Your task to perform on an android device: turn notification dots on Image 0: 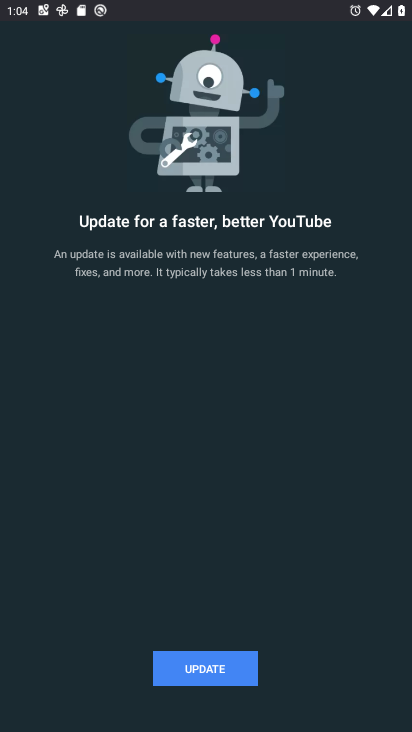
Step 0: press home button
Your task to perform on an android device: turn notification dots on Image 1: 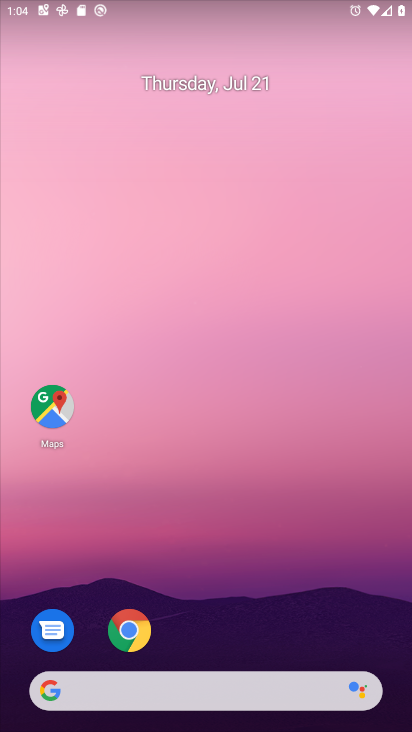
Step 1: drag from (181, 649) to (222, 85)
Your task to perform on an android device: turn notification dots on Image 2: 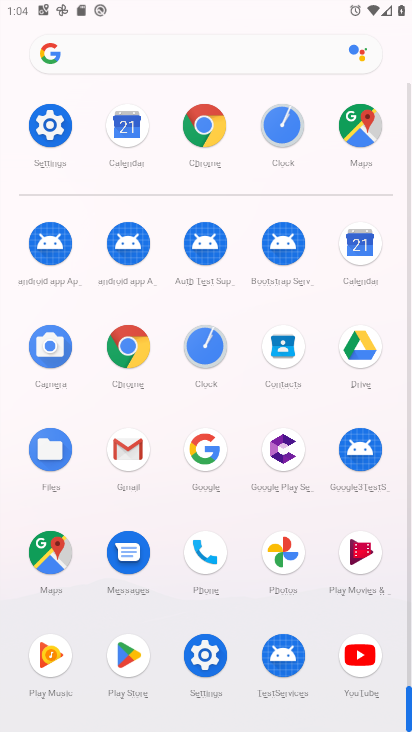
Step 2: click (205, 648)
Your task to perform on an android device: turn notification dots on Image 3: 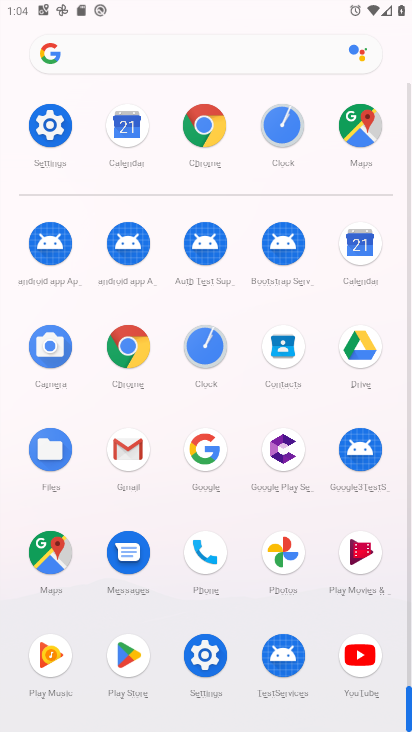
Step 3: click (205, 648)
Your task to perform on an android device: turn notification dots on Image 4: 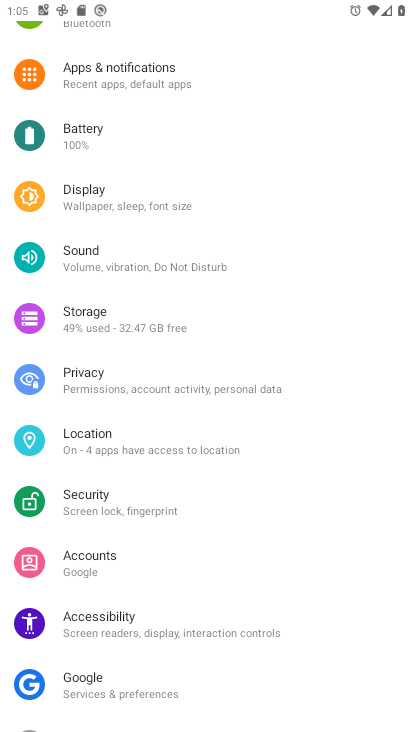
Step 4: click (146, 74)
Your task to perform on an android device: turn notification dots on Image 5: 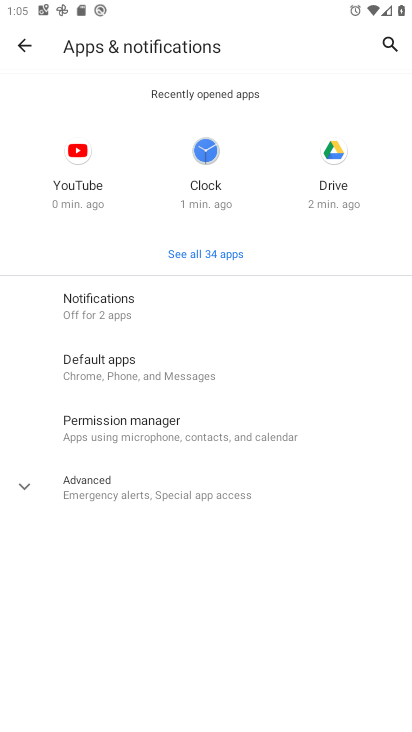
Step 5: click (164, 313)
Your task to perform on an android device: turn notification dots on Image 6: 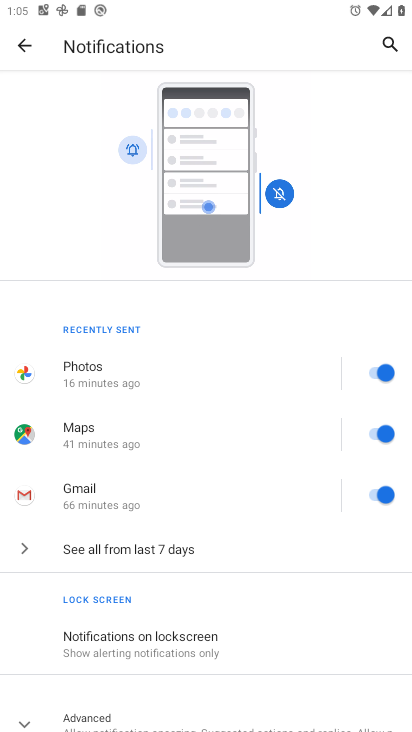
Step 6: drag from (203, 628) to (275, 345)
Your task to perform on an android device: turn notification dots on Image 7: 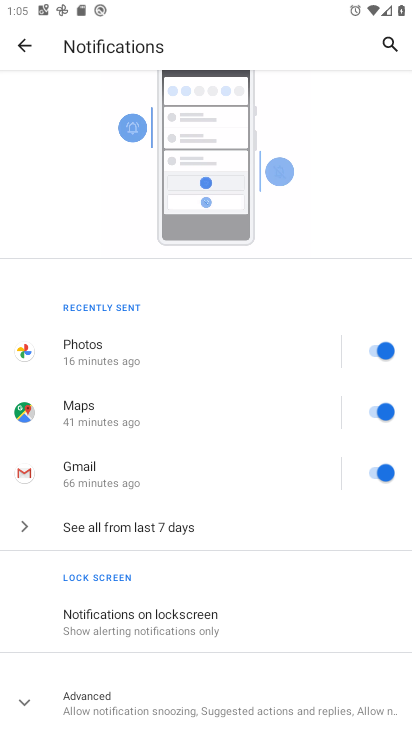
Step 7: click (140, 697)
Your task to perform on an android device: turn notification dots on Image 8: 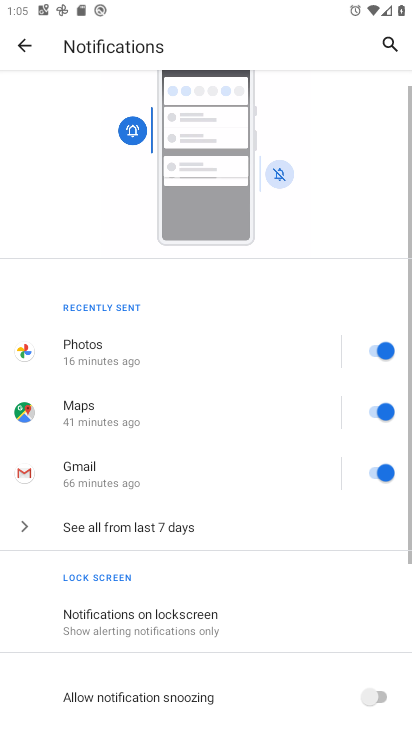
Step 8: drag from (208, 674) to (335, 182)
Your task to perform on an android device: turn notification dots on Image 9: 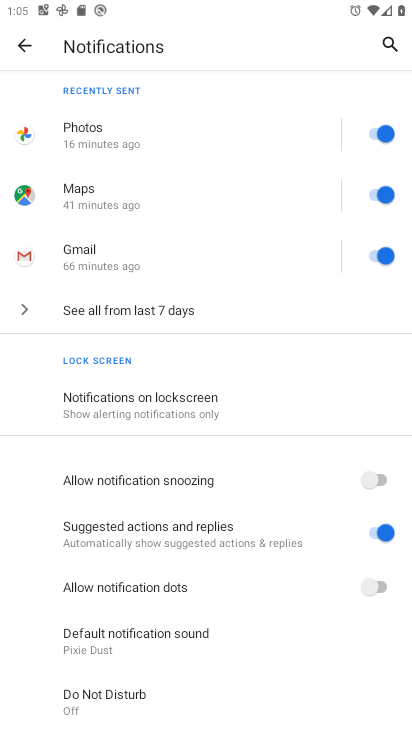
Step 9: click (303, 594)
Your task to perform on an android device: turn notification dots on Image 10: 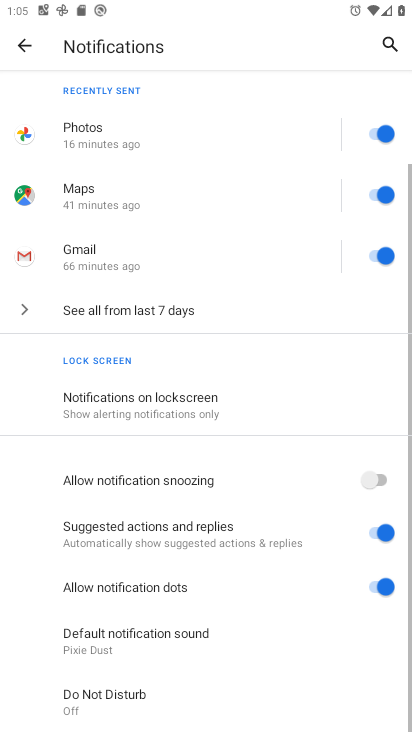
Step 10: task complete